Your task to perform on an android device: What's the weather today? Image 0: 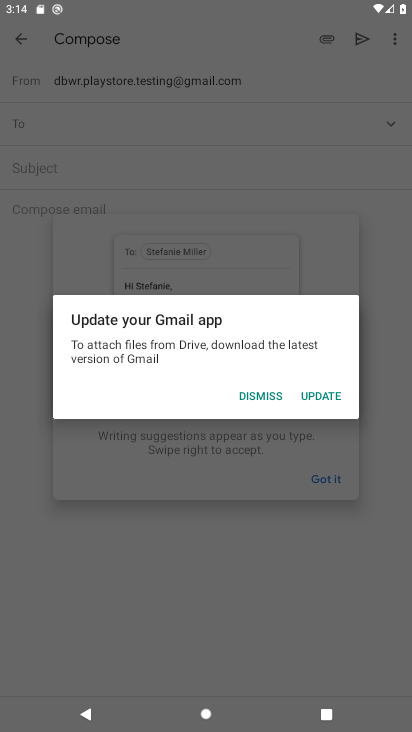
Step 0: press home button
Your task to perform on an android device: What's the weather today? Image 1: 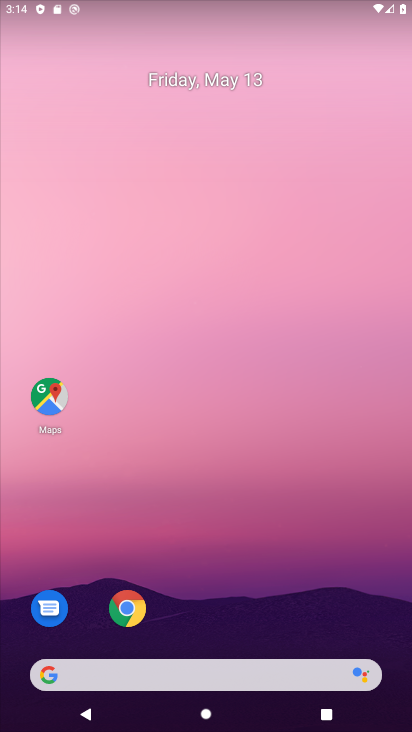
Step 1: click (127, 603)
Your task to perform on an android device: What's the weather today? Image 2: 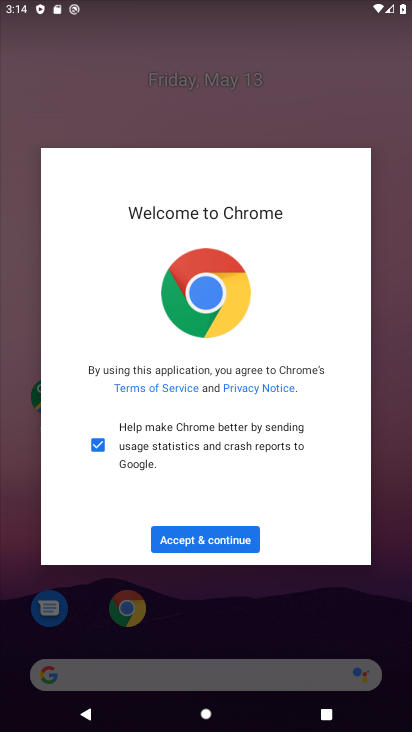
Step 2: click (196, 542)
Your task to perform on an android device: What's the weather today? Image 3: 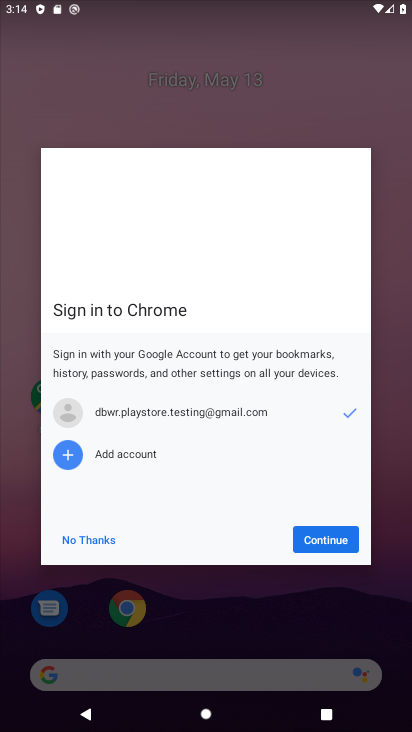
Step 3: click (330, 544)
Your task to perform on an android device: What's the weather today? Image 4: 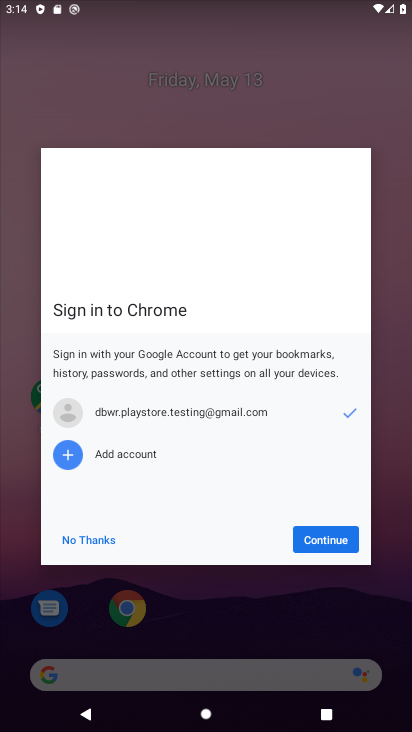
Step 4: click (330, 544)
Your task to perform on an android device: What's the weather today? Image 5: 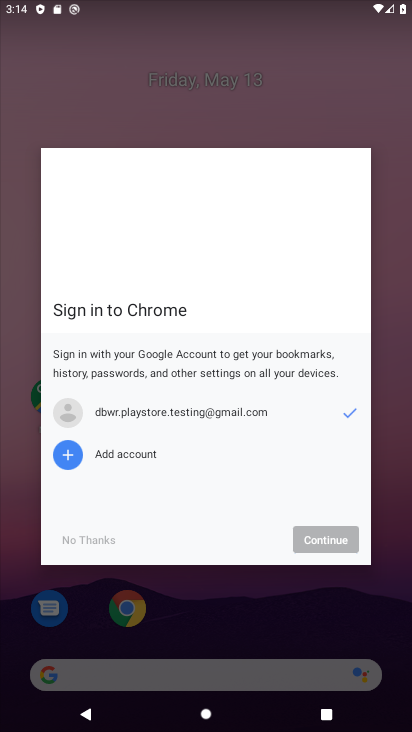
Step 5: click (330, 544)
Your task to perform on an android device: What's the weather today? Image 6: 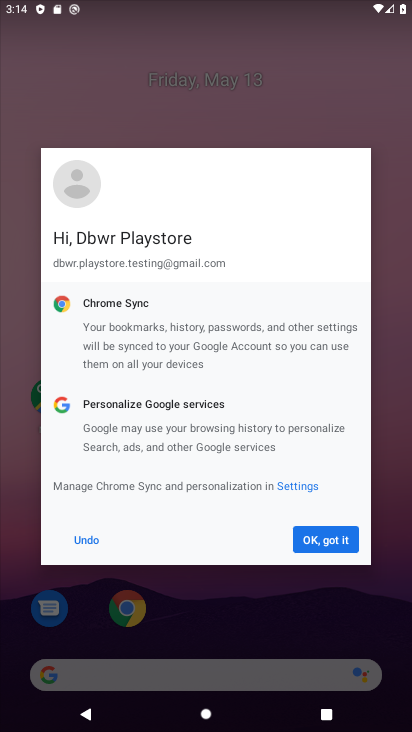
Step 6: click (330, 544)
Your task to perform on an android device: What's the weather today? Image 7: 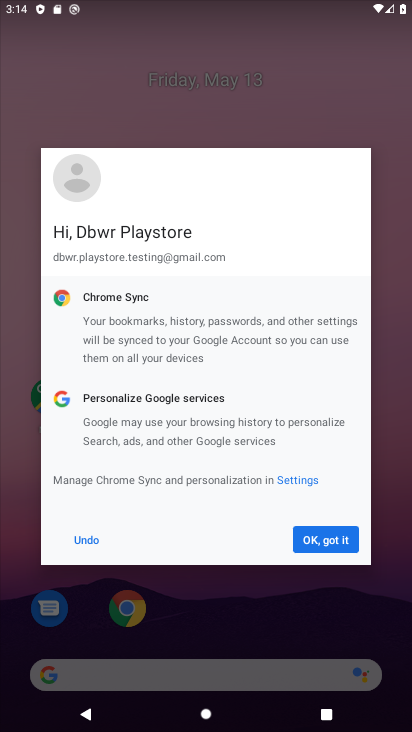
Step 7: click (330, 544)
Your task to perform on an android device: What's the weather today? Image 8: 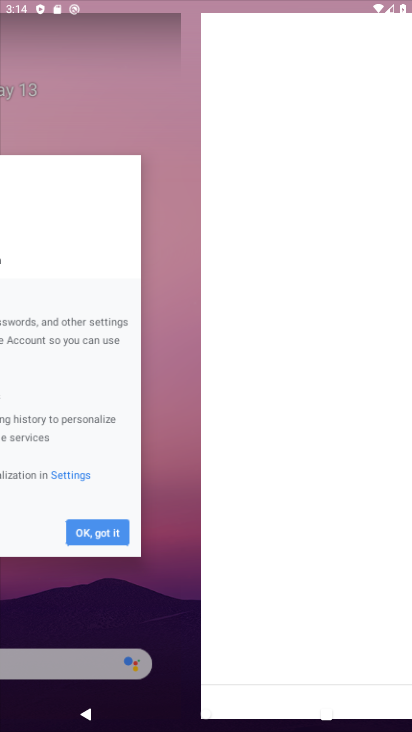
Step 8: click (330, 544)
Your task to perform on an android device: What's the weather today? Image 9: 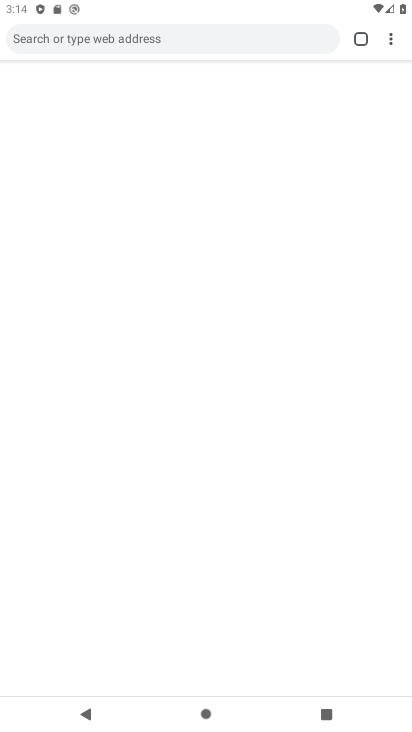
Step 9: click (330, 544)
Your task to perform on an android device: What's the weather today? Image 10: 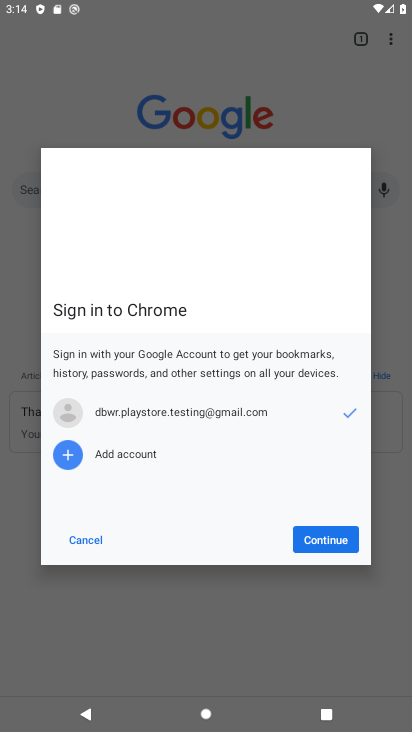
Step 10: click (321, 519)
Your task to perform on an android device: What's the weather today? Image 11: 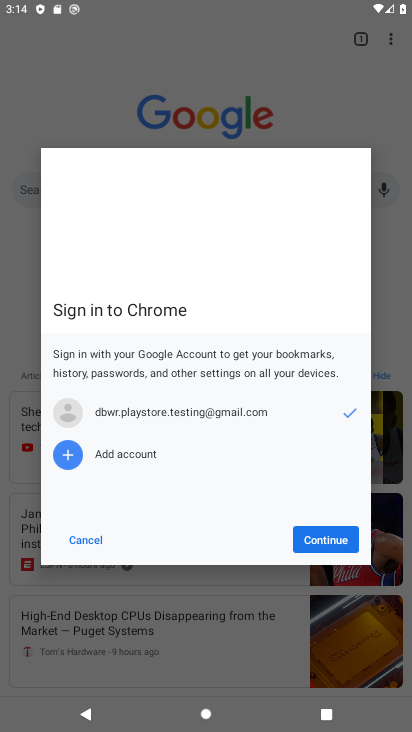
Step 11: click (216, 419)
Your task to perform on an android device: What's the weather today? Image 12: 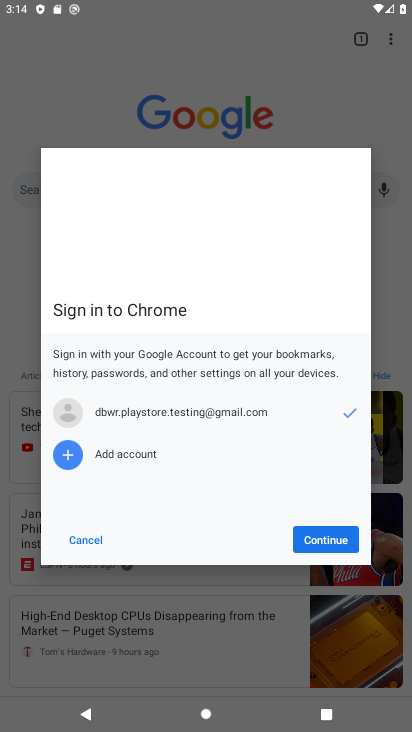
Step 12: click (310, 540)
Your task to perform on an android device: What's the weather today? Image 13: 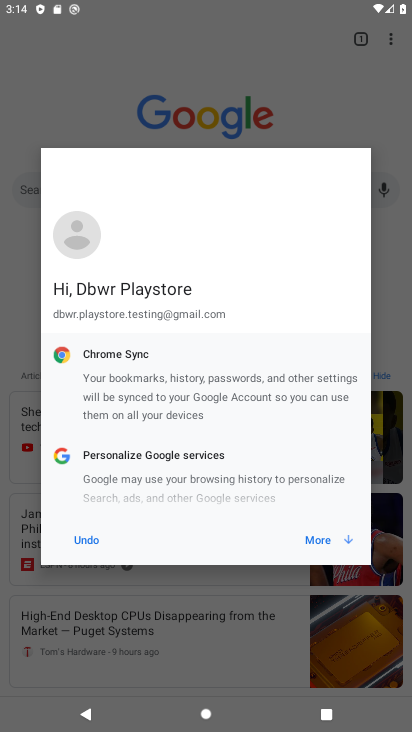
Step 13: click (308, 538)
Your task to perform on an android device: What's the weather today? Image 14: 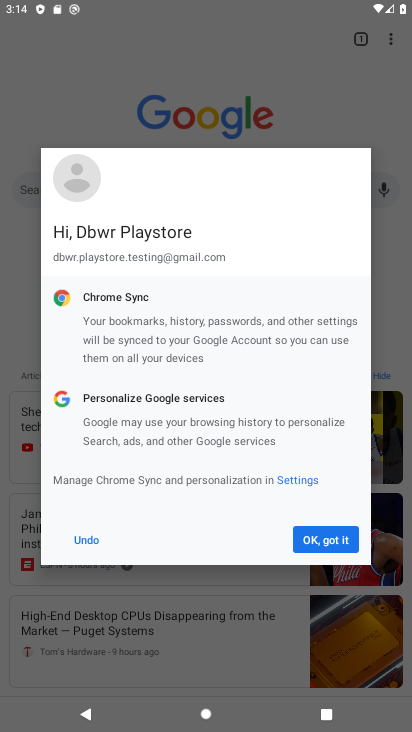
Step 14: click (308, 538)
Your task to perform on an android device: What's the weather today? Image 15: 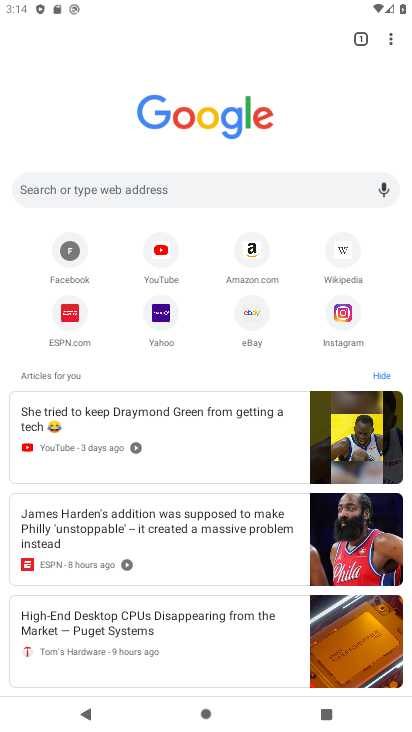
Step 15: click (169, 179)
Your task to perform on an android device: What's the weather today? Image 16: 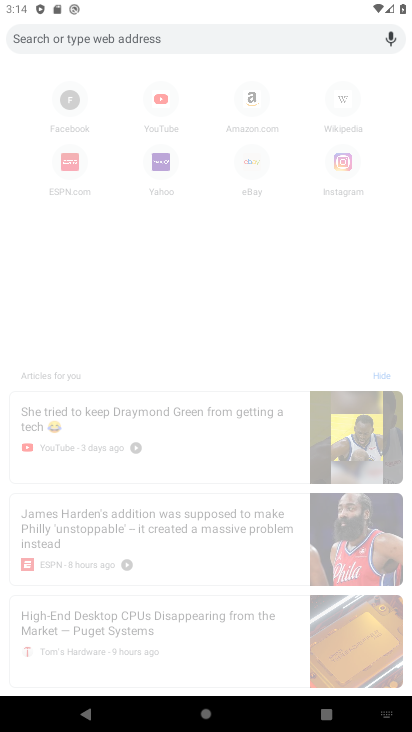
Step 16: type "What's the weather today?"
Your task to perform on an android device: What's the weather today? Image 17: 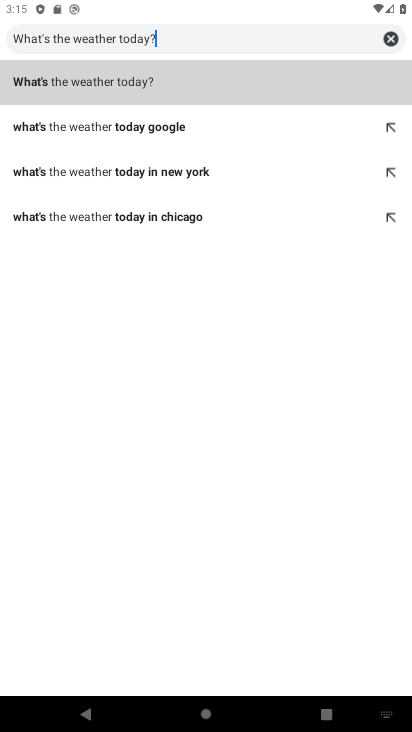
Step 17: click (183, 79)
Your task to perform on an android device: What's the weather today? Image 18: 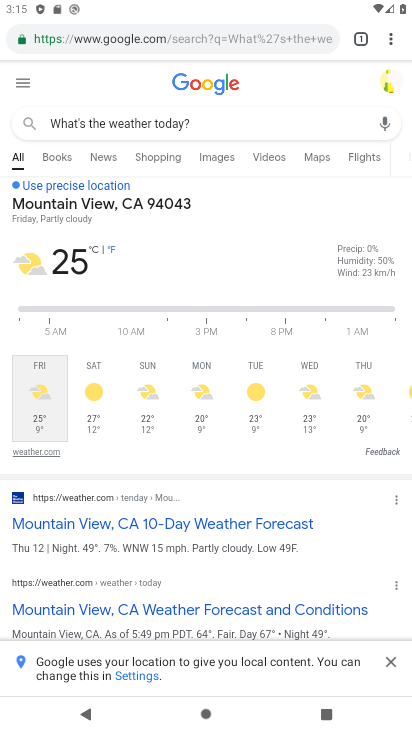
Step 18: task complete